Your task to perform on an android device: open app "Facebook" (install if not already installed) and go to login screen Image 0: 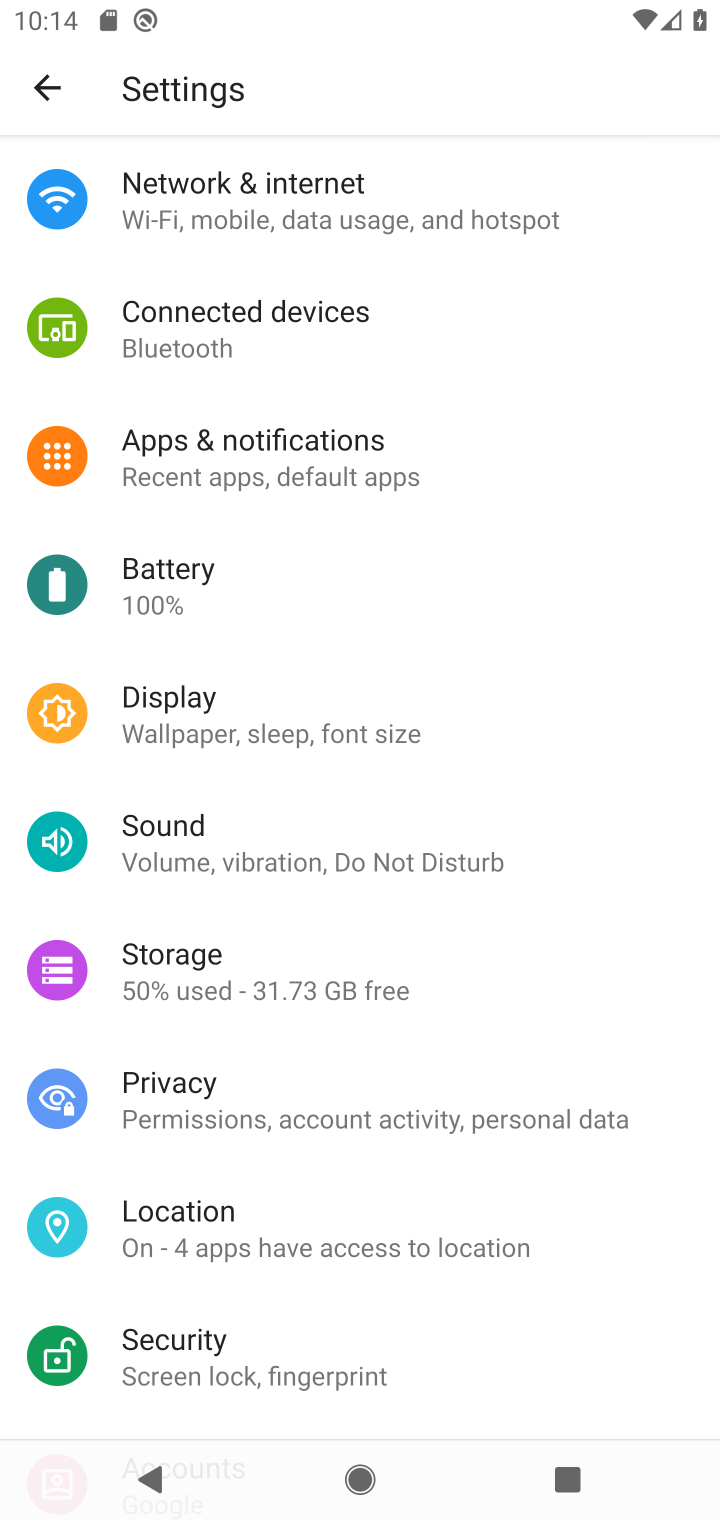
Step 0: press home button
Your task to perform on an android device: open app "Facebook" (install if not already installed) and go to login screen Image 1: 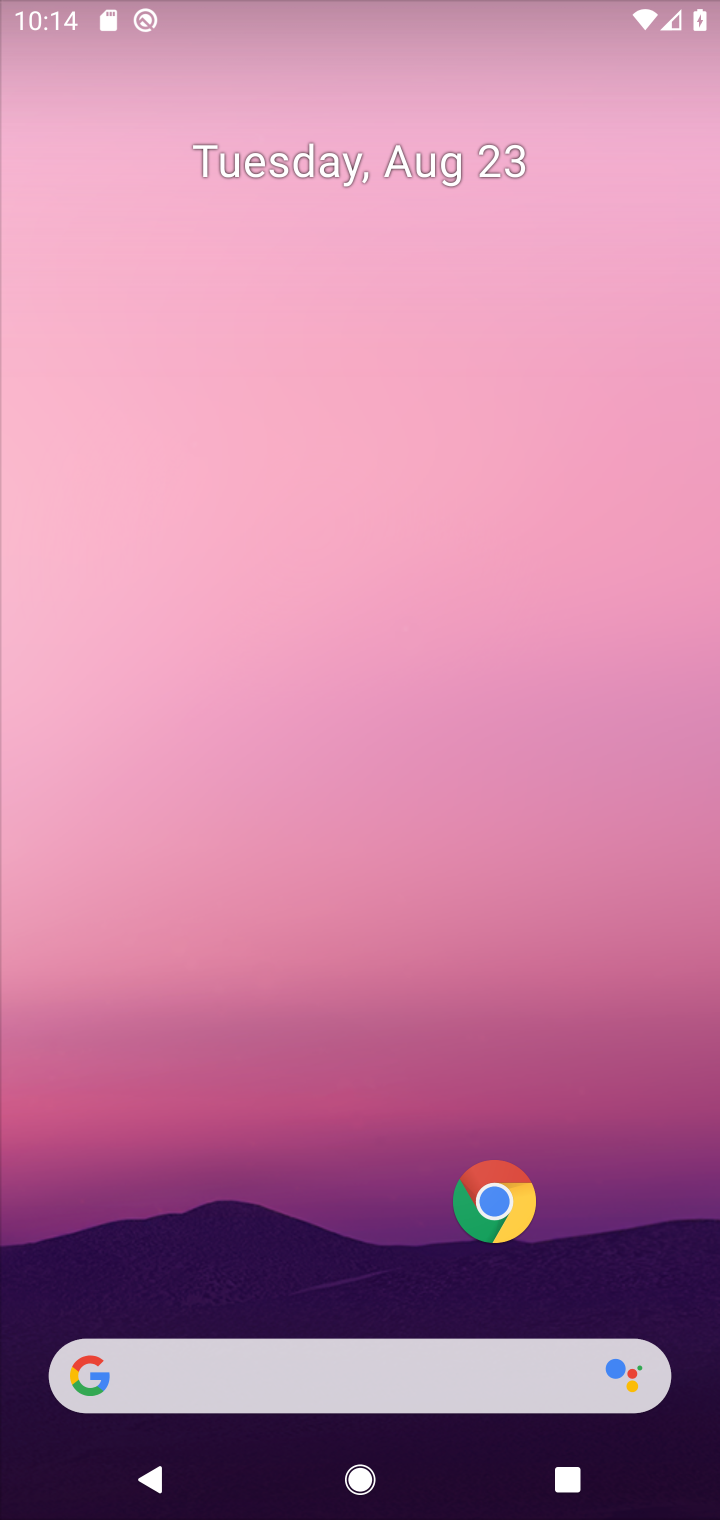
Step 1: drag from (306, 1326) to (299, 383)
Your task to perform on an android device: open app "Facebook" (install if not already installed) and go to login screen Image 2: 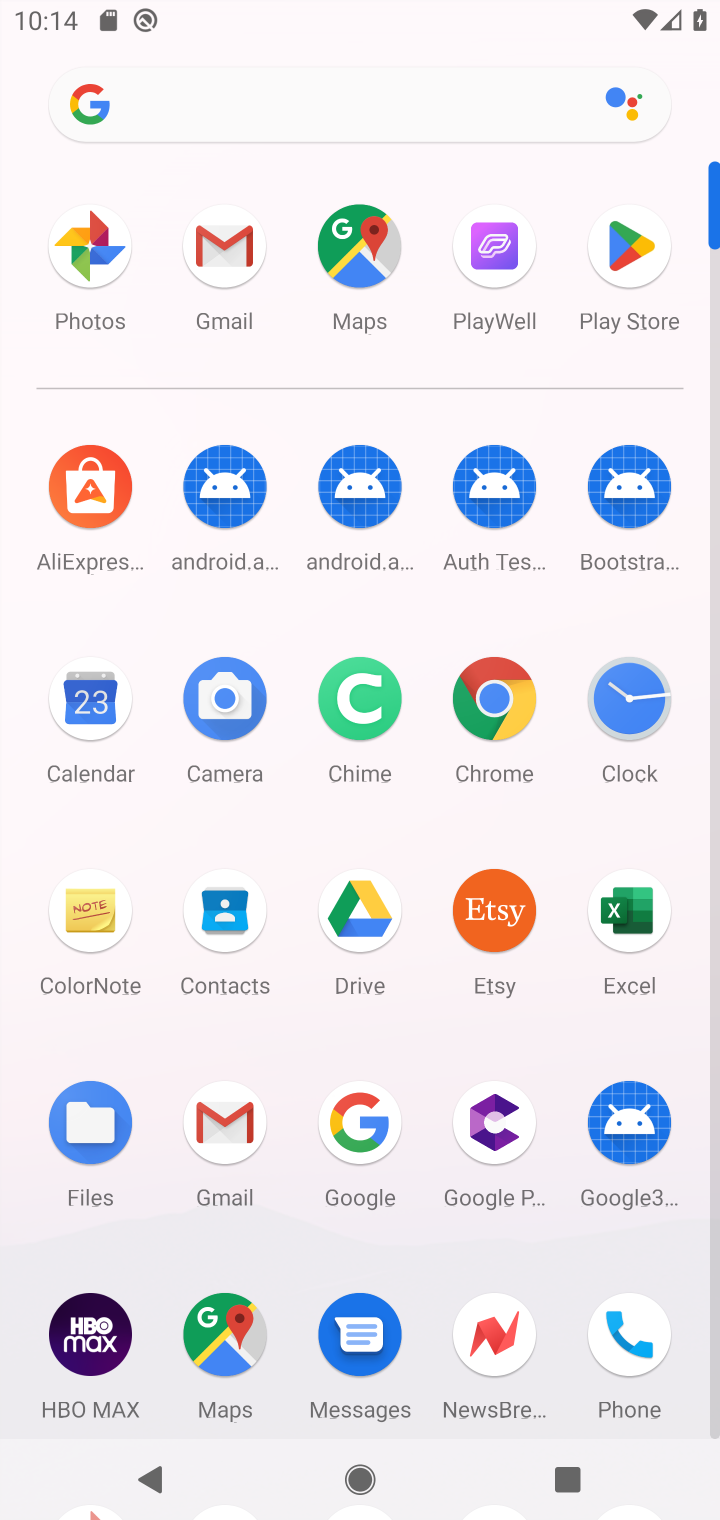
Step 2: click (639, 235)
Your task to perform on an android device: open app "Facebook" (install if not already installed) and go to login screen Image 3: 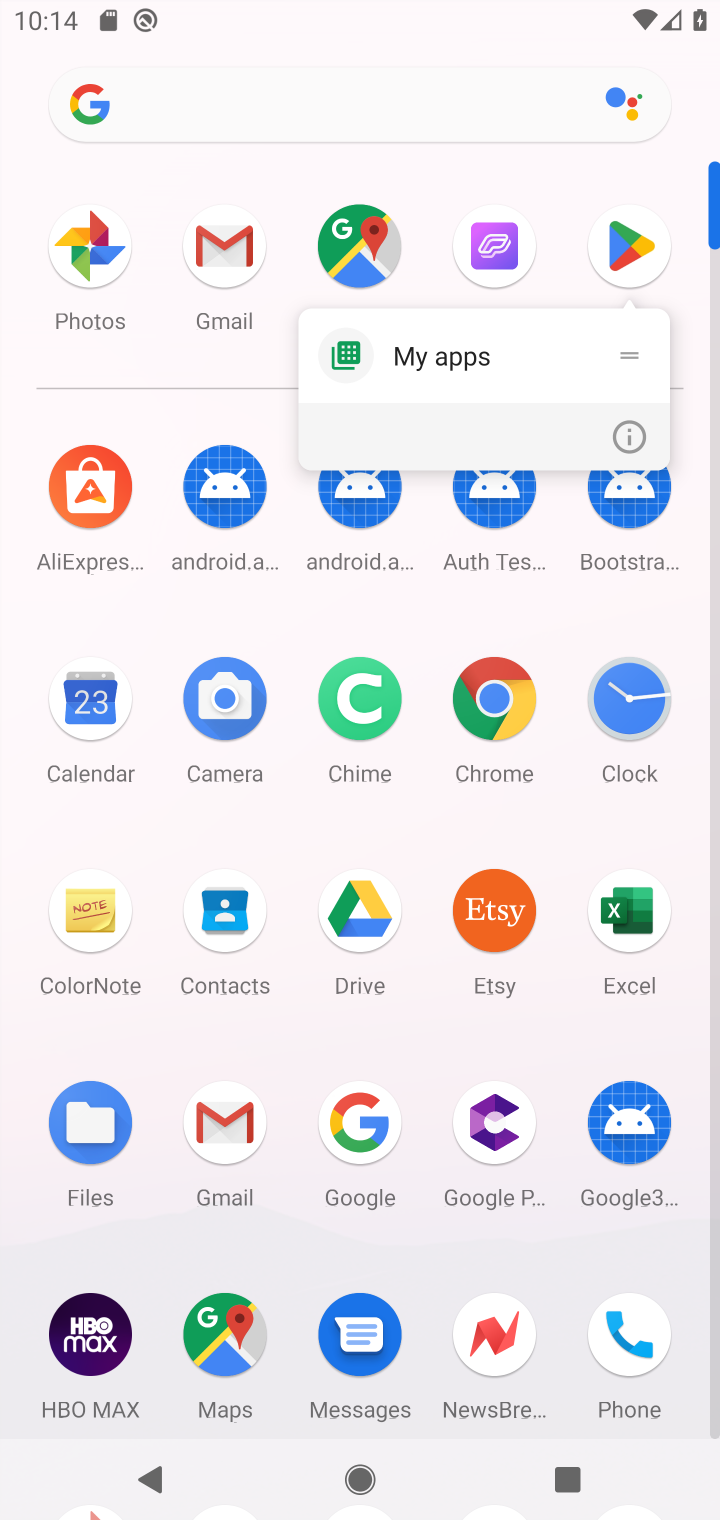
Step 3: click (639, 235)
Your task to perform on an android device: open app "Facebook" (install if not already installed) and go to login screen Image 4: 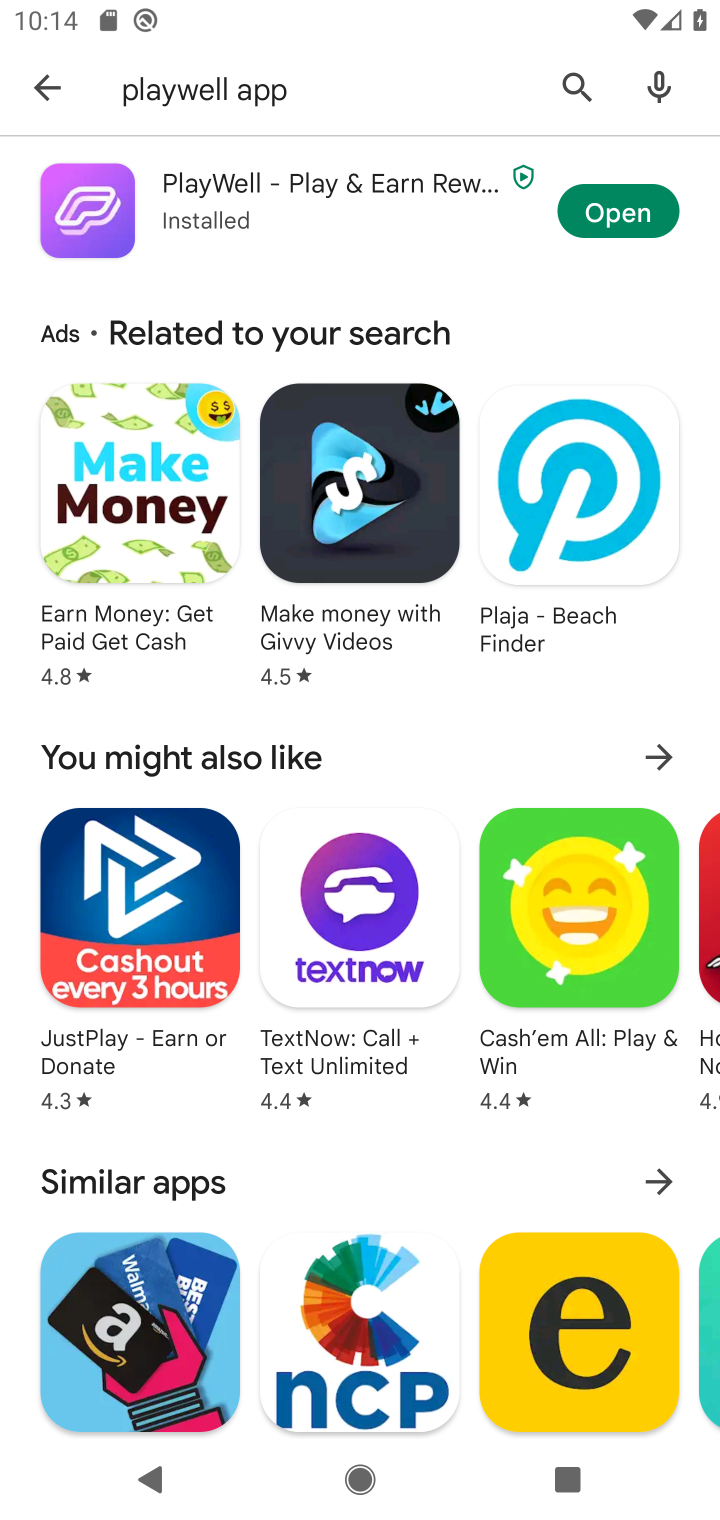
Step 4: click (56, 85)
Your task to perform on an android device: open app "Facebook" (install if not already installed) and go to login screen Image 5: 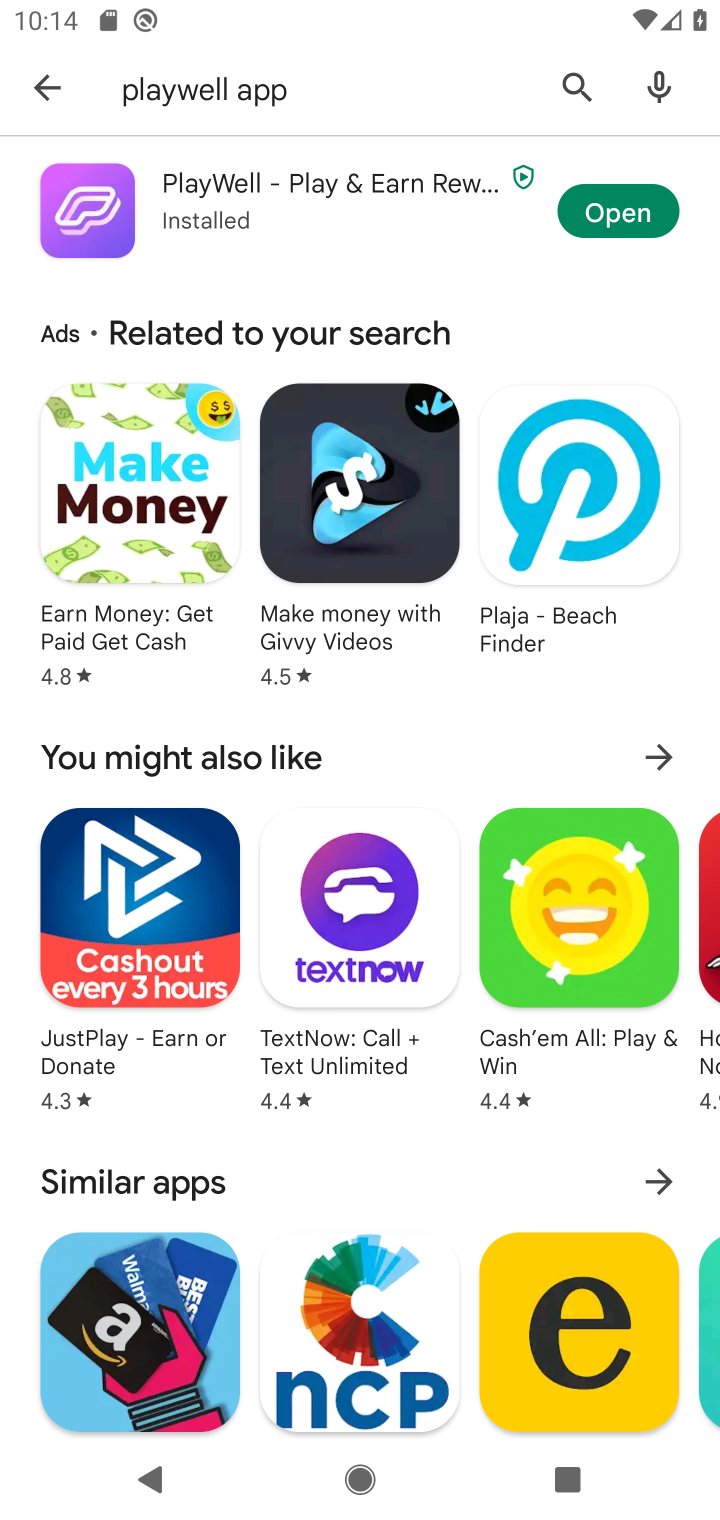
Step 5: click (30, 100)
Your task to perform on an android device: open app "Facebook" (install if not already installed) and go to login screen Image 6: 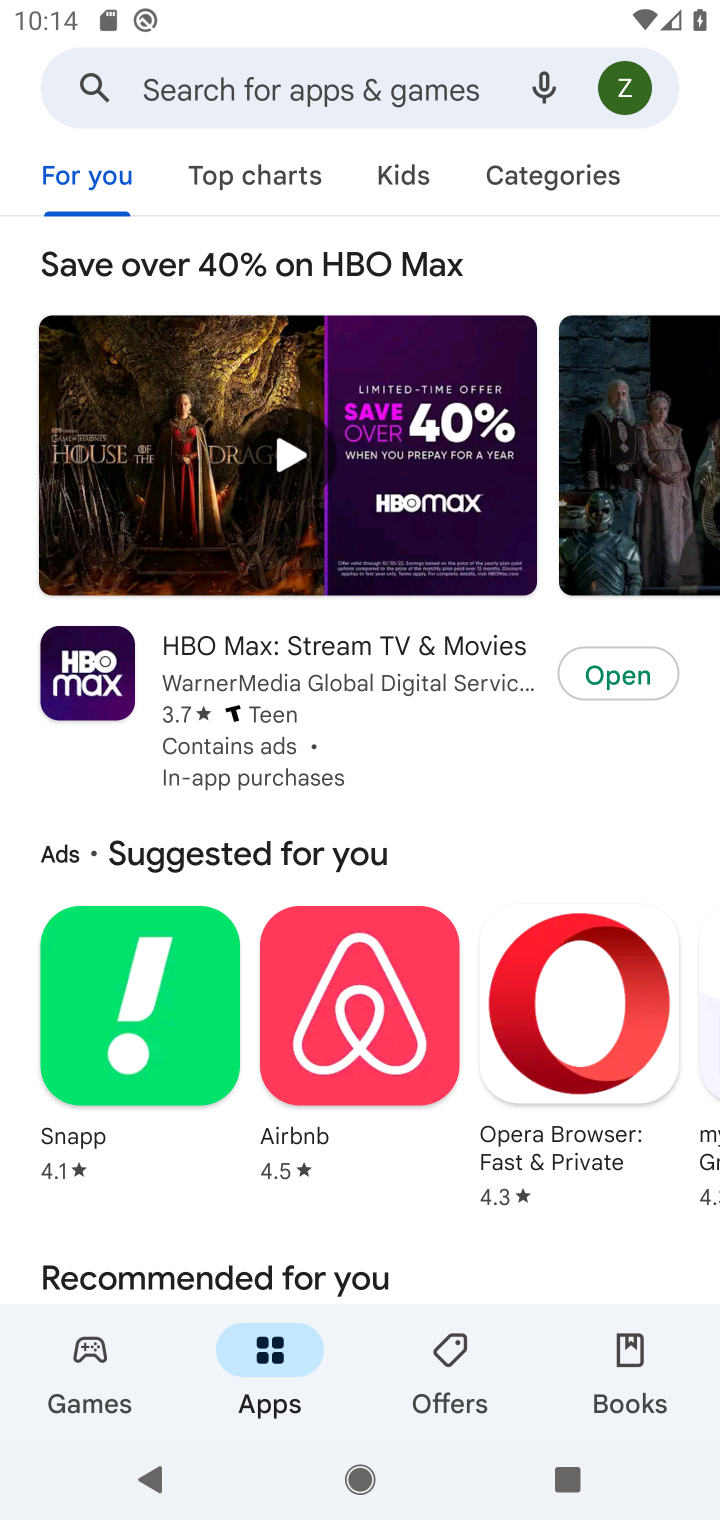
Step 6: click (349, 75)
Your task to perform on an android device: open app "Facebook" (install if not already installed) and go to login screen Image 7: 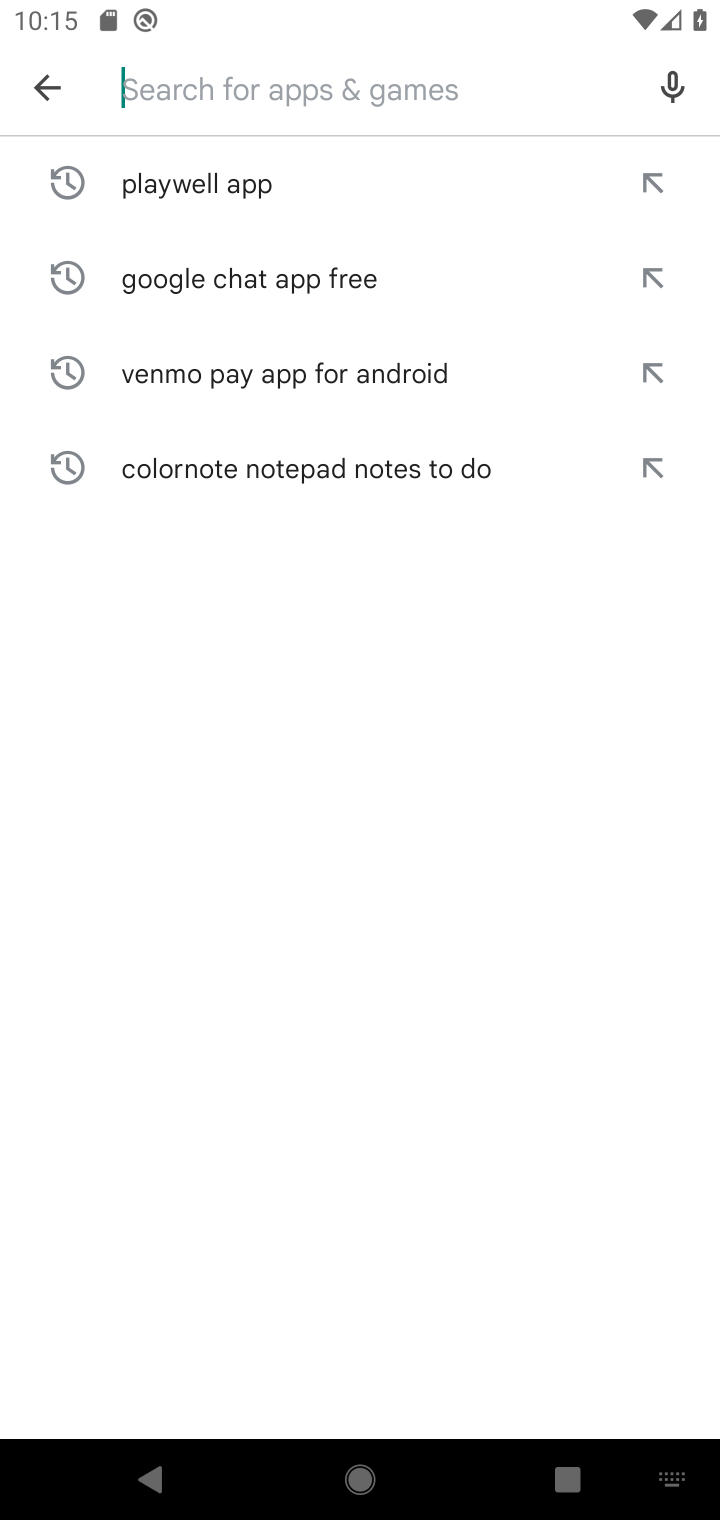
Step 7: type "Facebook "
Your task to perform on an android device: open app "Facebook" (install if not already installed) and go to login screen Image 8: 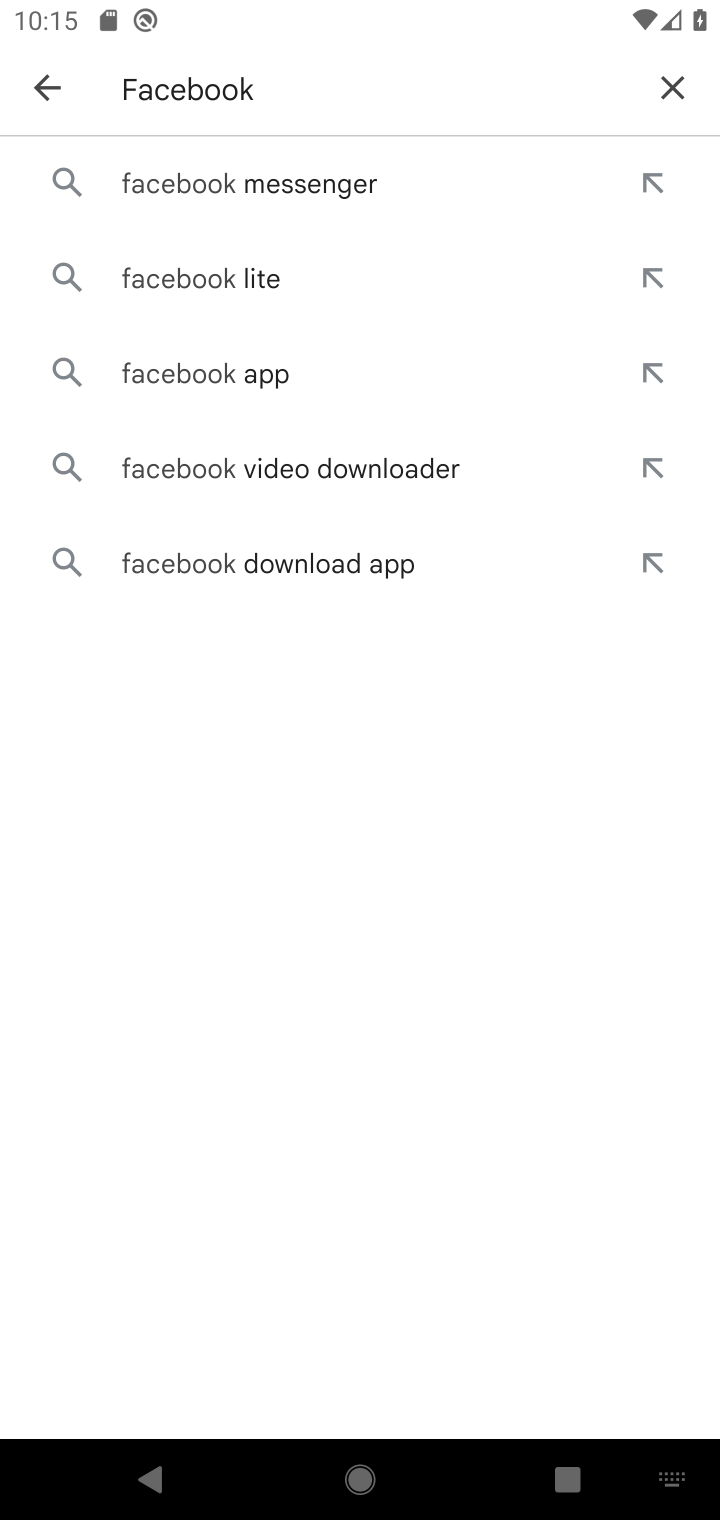
Step 8: click (249, 350)
Your task to perform on an android device: open app "Facebook" (install if not already installed) and go to login screen Image 9: 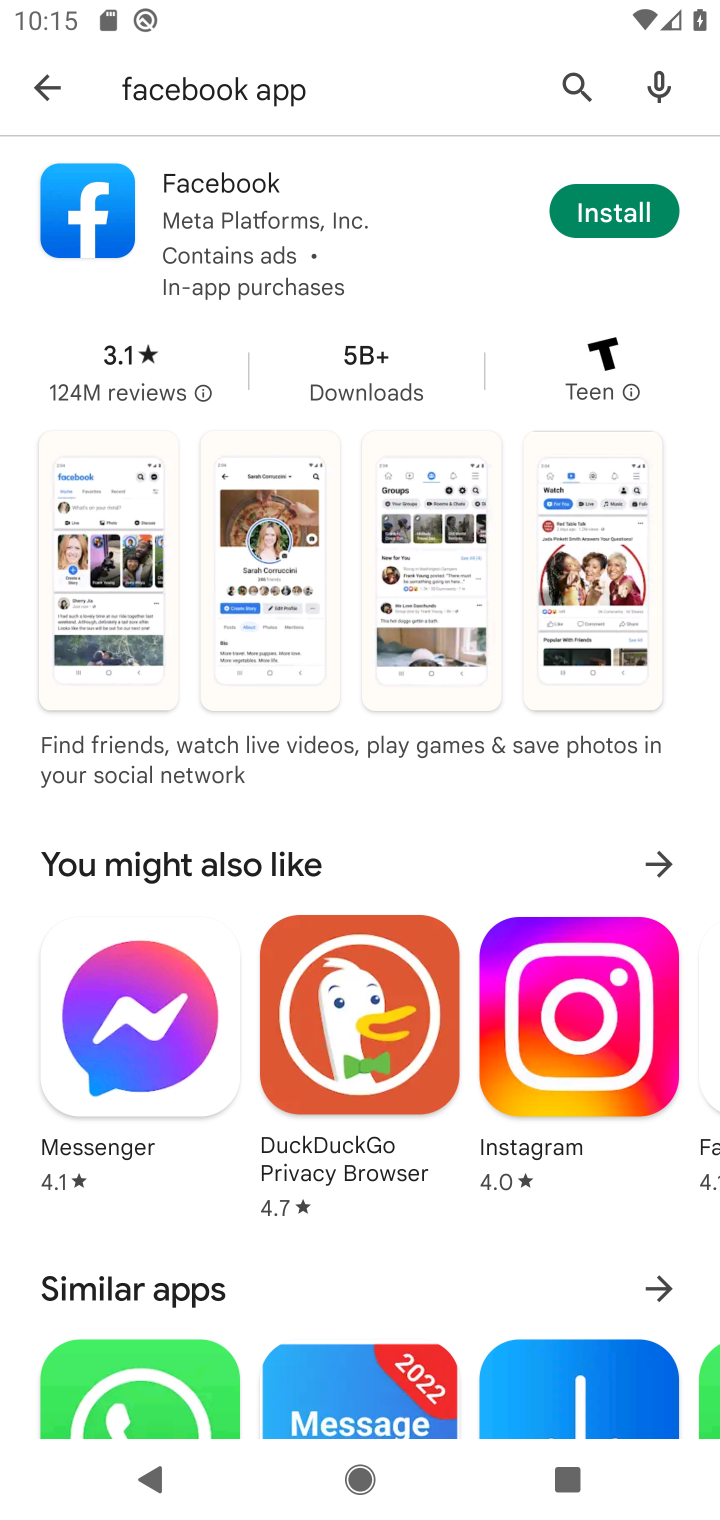
Step 9: click (621, 215)
Your task to perform on an android device: open app "Facebook" (install if not already installed) and go to login screen Image 10: 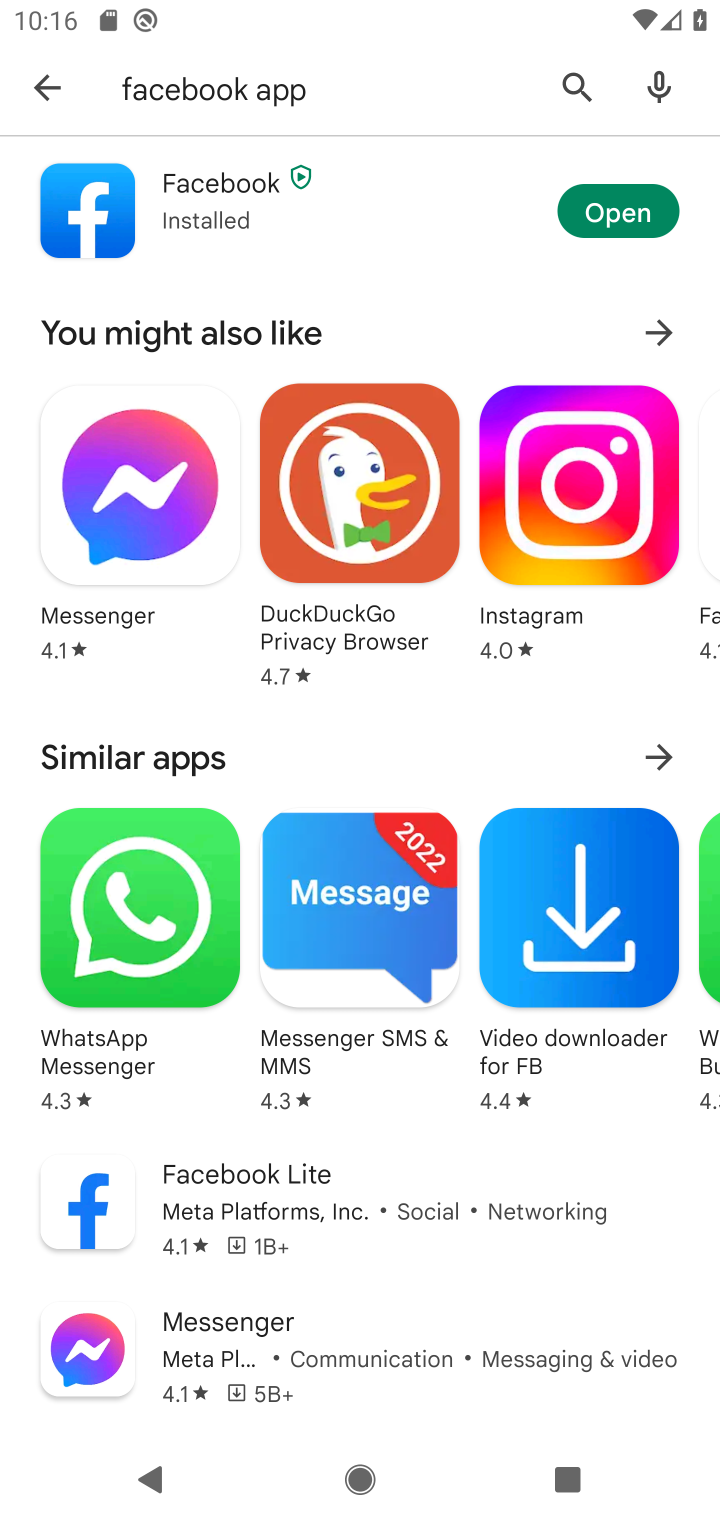
Step 10: task complete